Your task to perform on an android device: Open sound settings Image 0: 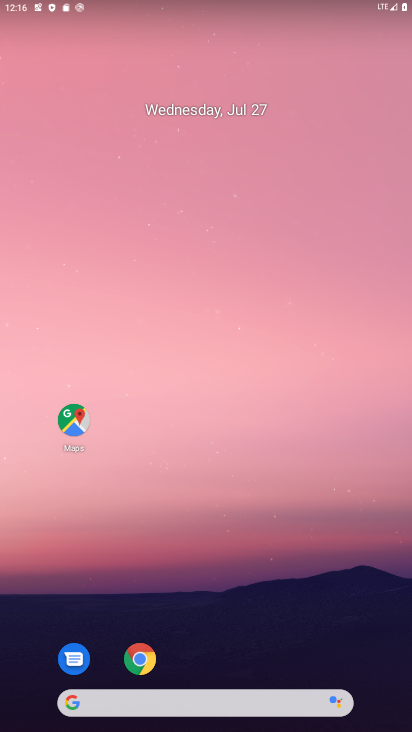
Step 0: click (255, 635)
Your task to perform on an android device: Open sound settings Image 1: 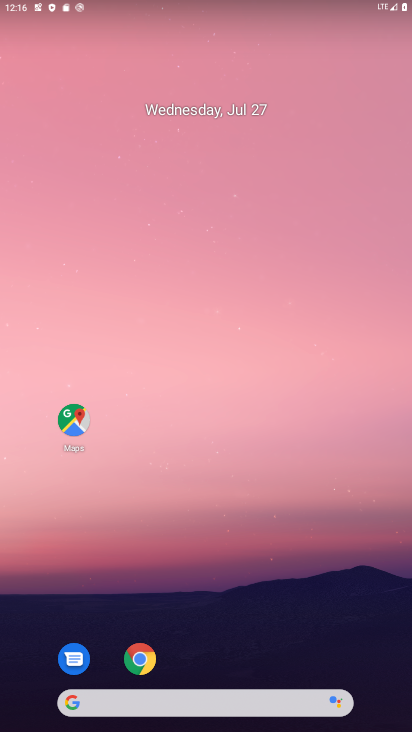
Step 1: drag from (239, 637) to (217, 187)
Your task to perform on an android device: Open sound settings Image 2: 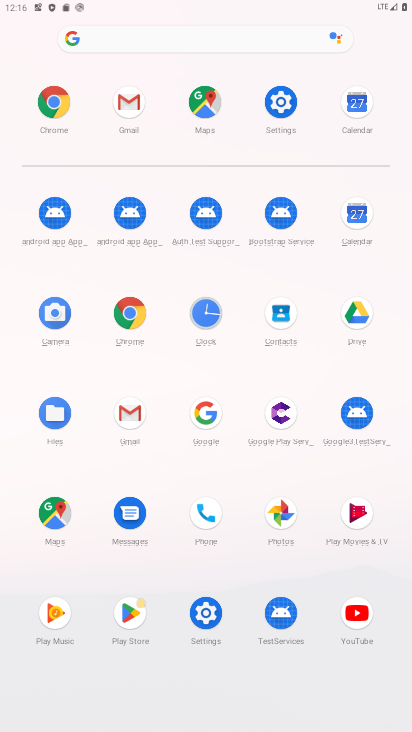
Step 2: click (200, 626)
Your task to perform on an android device: Open sound settings Image 3: 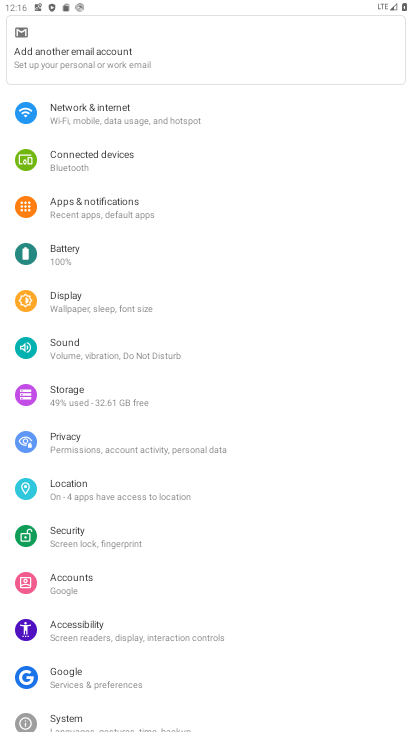
Step 3: click (137, 357)
Your task to perform on an android device: Open sound settings Image 4: 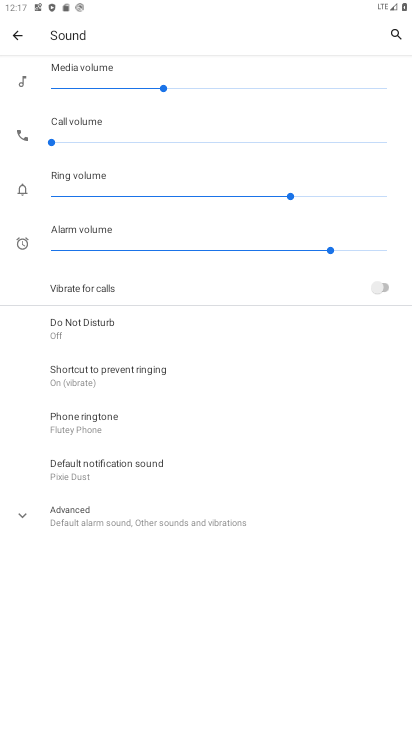
Step 4: task complete